Your task to perform on an android device: Open the map Image 0: 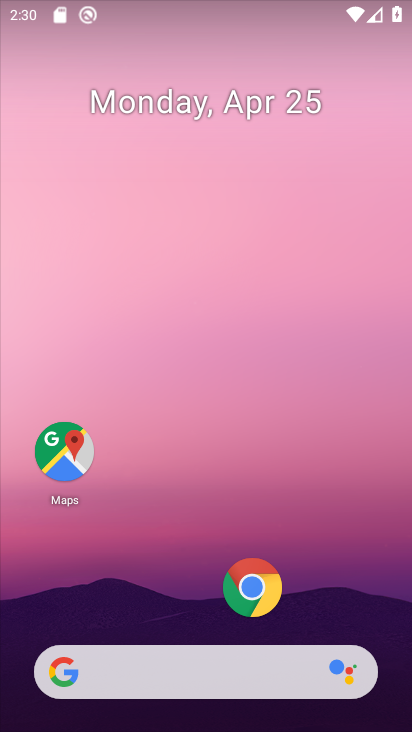
Step 0: press home button
Your task to perform on an android device: Open the map Image 1: 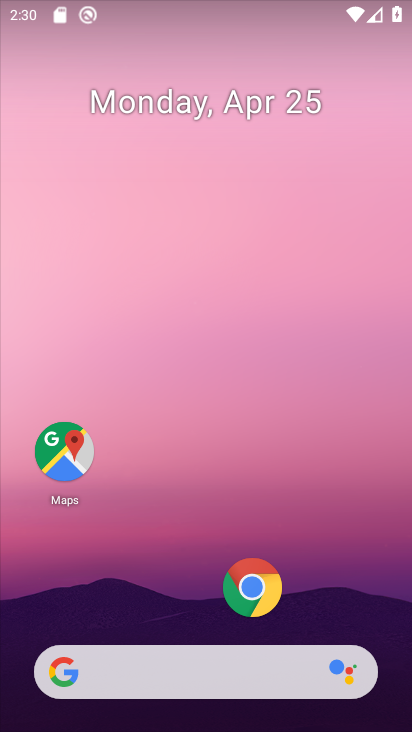
Step 1: drag from (205, 622) to (205, 77)
Your task to perform on an android device: Open the map Image 2: 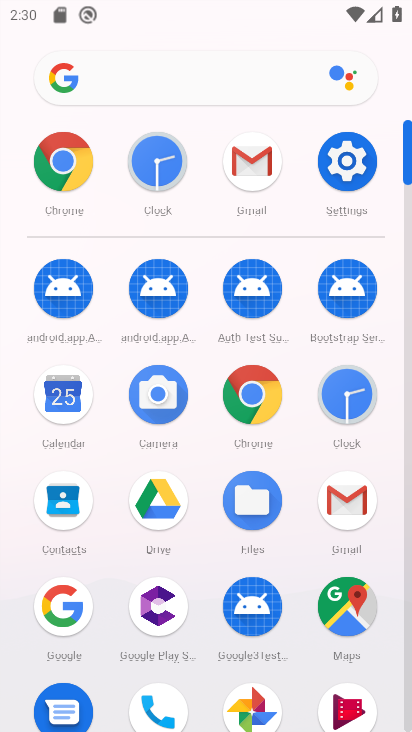
Step 2: click (348, 601)
Your task to perform on an android device: Open the map Image 3: 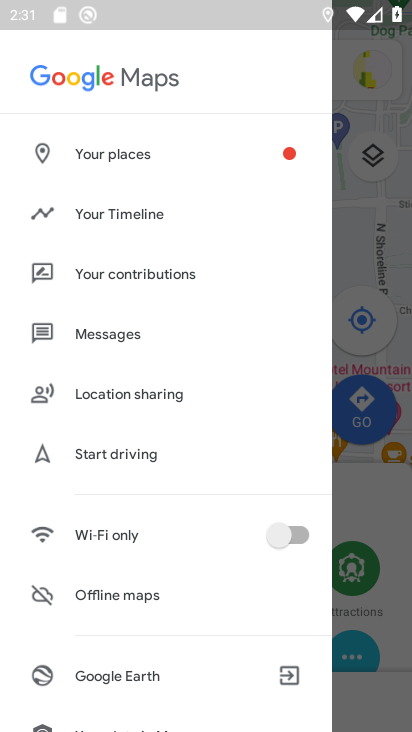
Step 3: click (360, 271)
Your task to perform on an android device: Open the map Image 4: 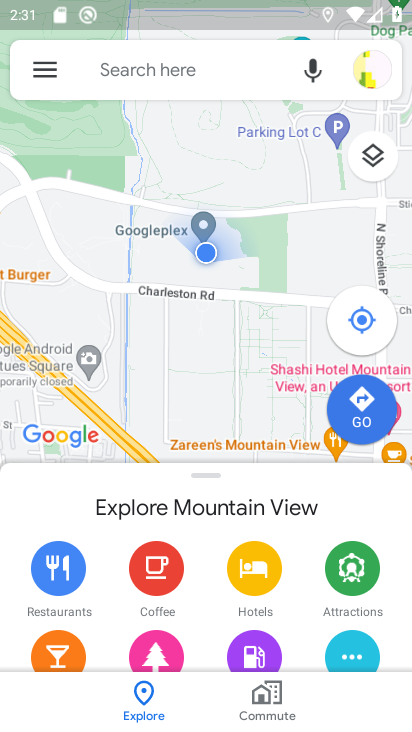
Step 4: task complete